Your task to perform on an android device: Turn on the flashlight Image 0: 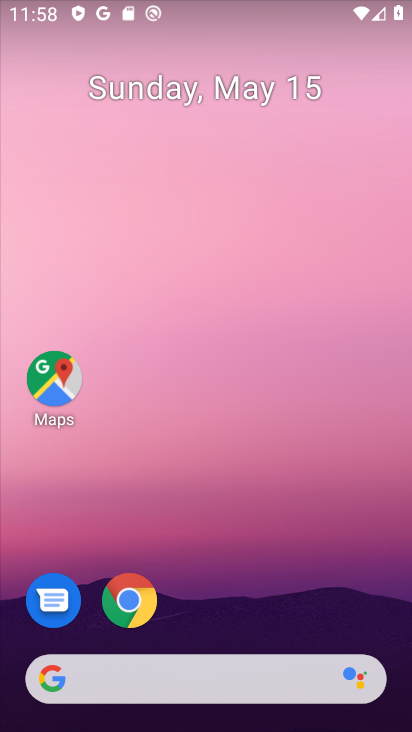
Step 0: drag from (194, 728) to (185, 137)
Your task to perform on an android device: Turn on the flashlight Image 1: 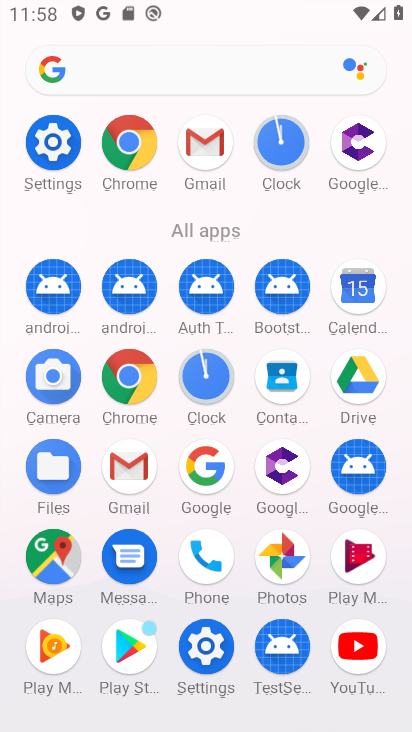
Step 1: click (51, 135)
Your task to perform on an android device: Turn on the flashlight Image 2: 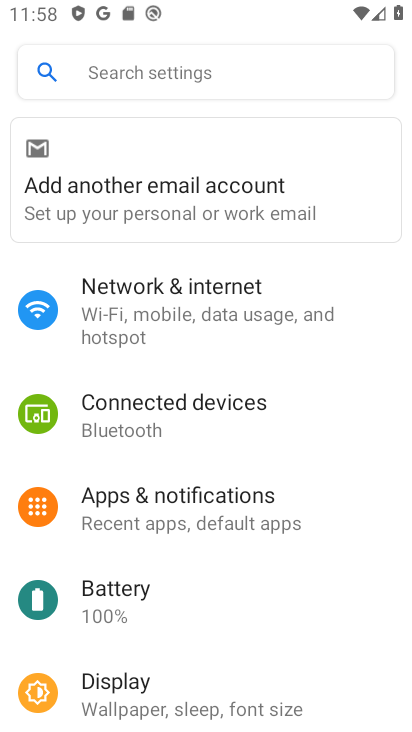
Step 2: task complete